Your task to perform on an android device: check android version Image 0: 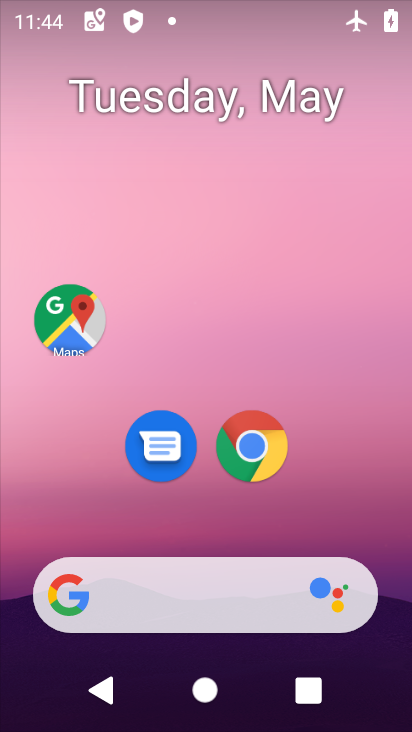
Step 0: drag from (234, 722) to (236, 89)
Your task to perform on an android device: check android version Image 1: 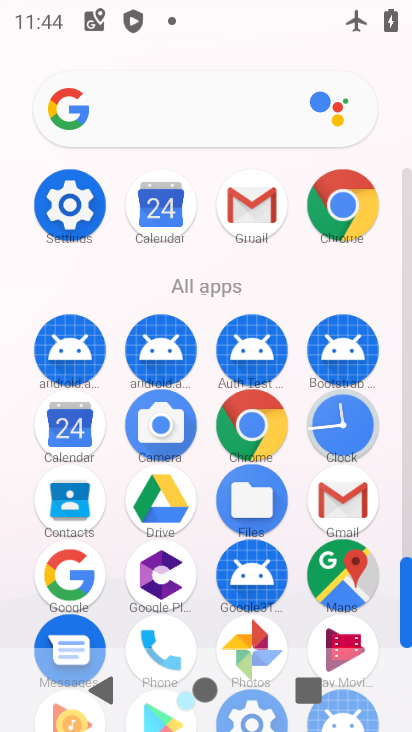
Step 1: click (75, 208)
Your task to perform on an android device: check android version Image 2: 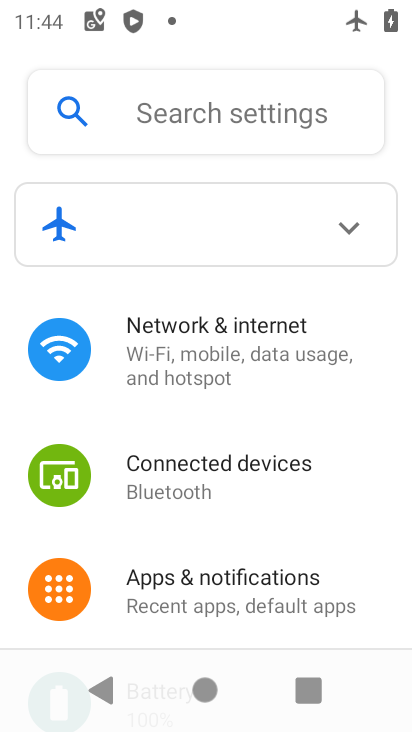
Step 2: drag from (155, 612) to (165, 394)
Your task to perform on an android device: check android version Image 3: 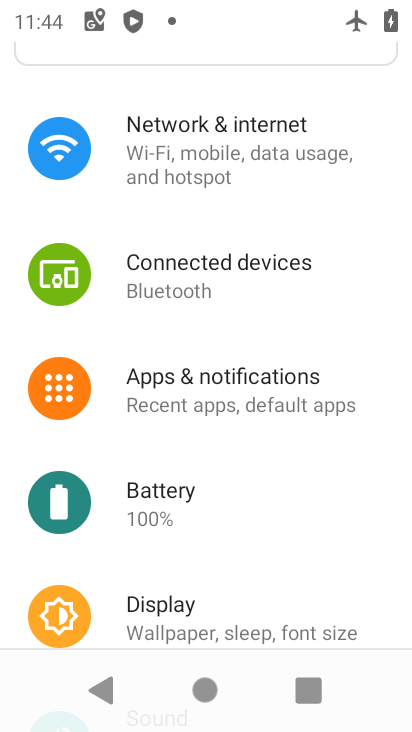
Step 3: drag from (196, 621) to (196, 330)
Your task to perform on an android device: check android version Image 4: 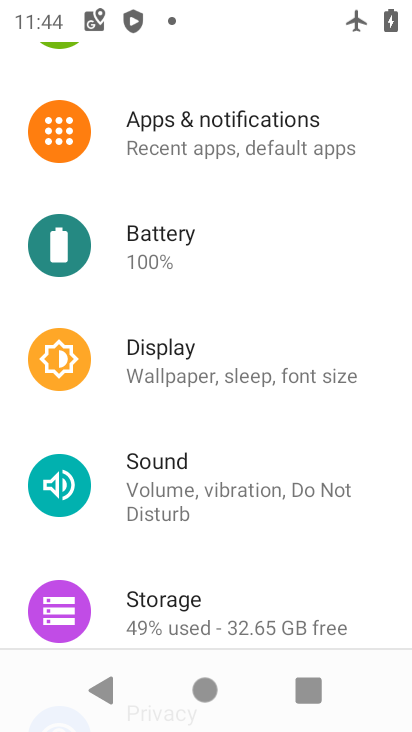
Step 4: drag from (183, 600) to (199, 292)
Your task to perform on an android device: check android version Image 5: 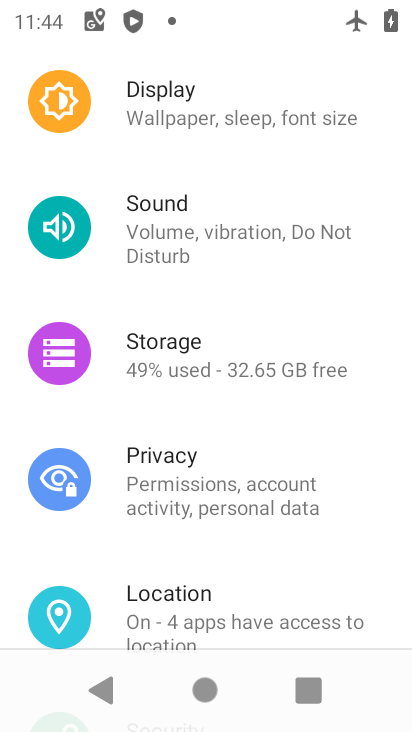
Step 5: drag from (199, 590) to (197, 241)
Your task to perform on an android device: check android version Image 6: 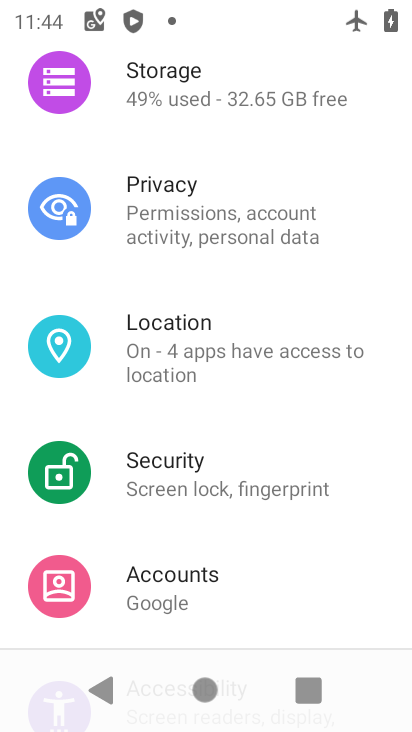
Step 6: drag from (177, 594) to (180, 311)
Your task to perform on an android device: check android version Image 7: 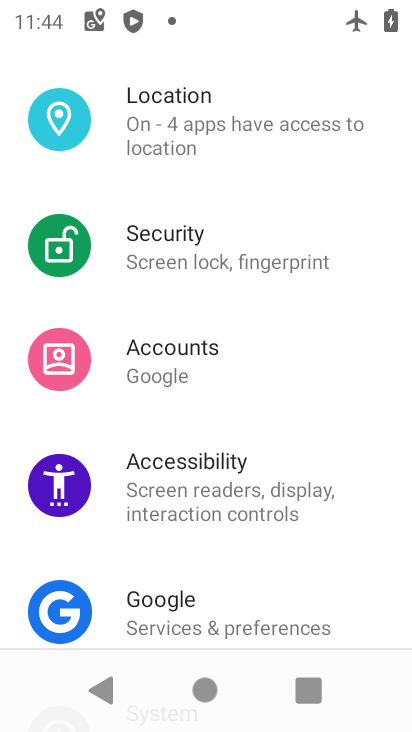
Step 7: drag from (191, 596) to (202, 388)
Your task to perform on an android device: check android version Image 8: 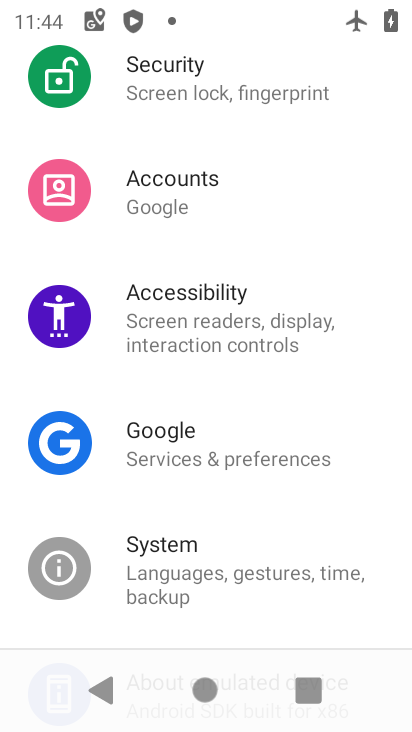
Step 8: drag from (187, 624) to (195, 293)
Your task to perform on an android device: check android version Image 9: 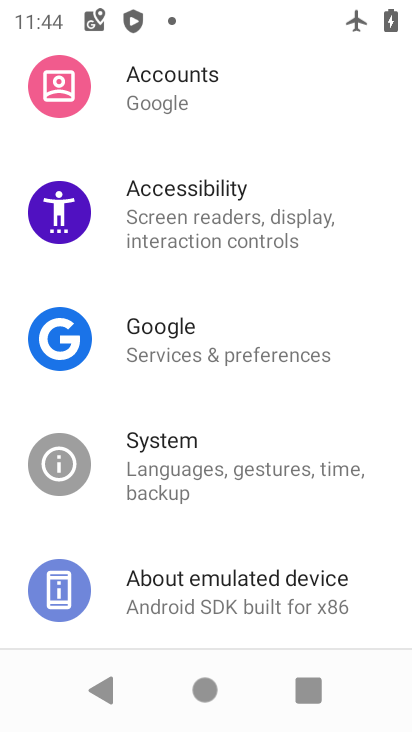
Step 9: drag from (183, 601) to (204, 358)
Your task to perform on an android device: check android version Image 10: 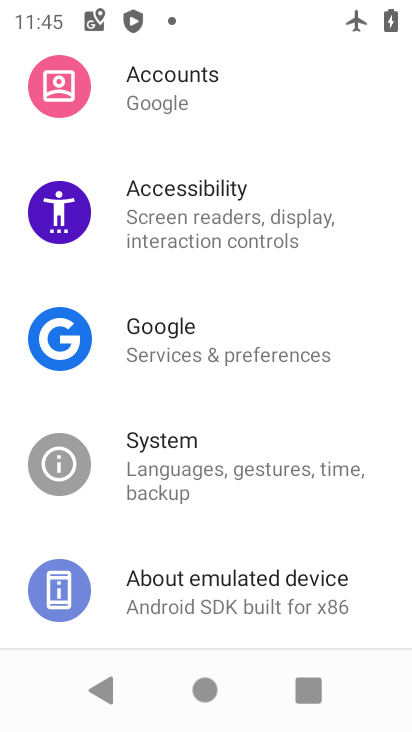
Step 10: click (176, 588)
Your task to perform on an android device: check android version Image 11: 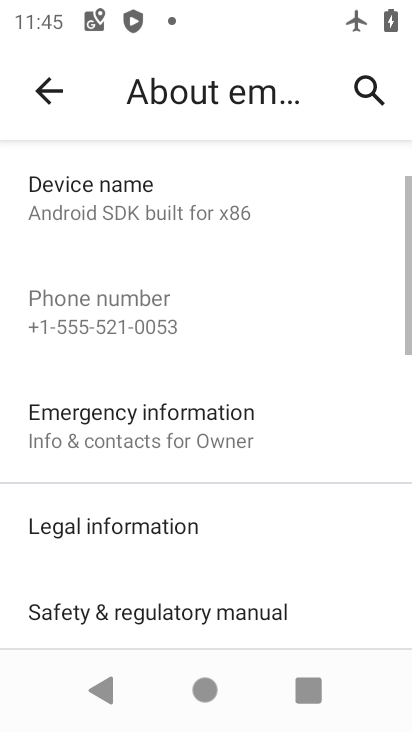
Step 11: drag from (138, 579) to (143, 214)
Your task to perform on an android device: check android version Image 12: 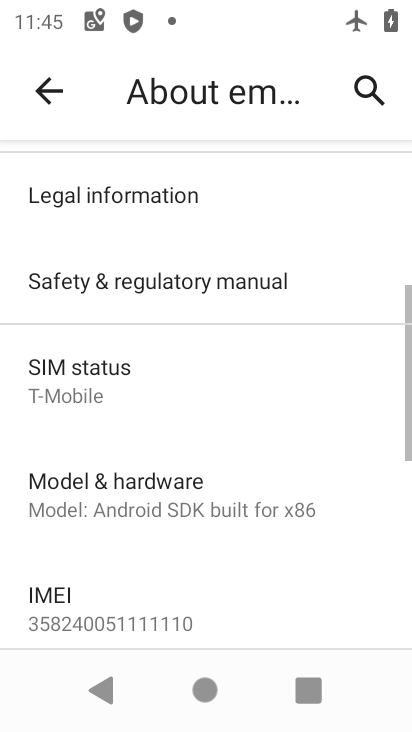
Step 12: drag from (102, 598) to (113, 239)
Your task to perform on an android device: check android version Image 13: 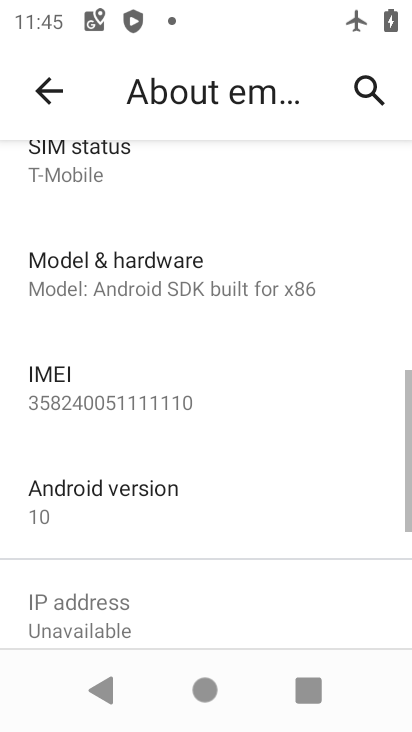
Step 13: click (94, 497)
Your task to perform on an android device: check android version Image 14: 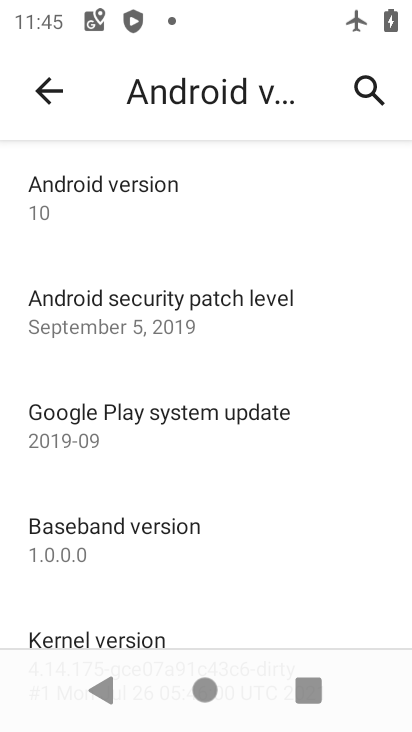
Step 14: task complete